Your task to perform on an android device: Go to Yahoo.com Image 0: 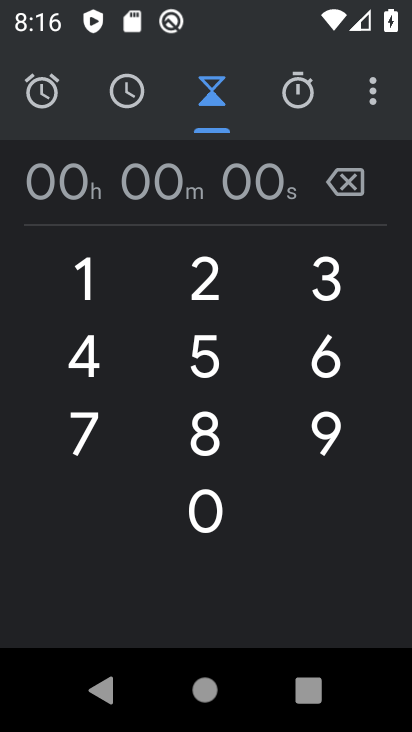
Step 0: press back button
Your task to perform on an android device: Go to Yahoo.com Image 1: 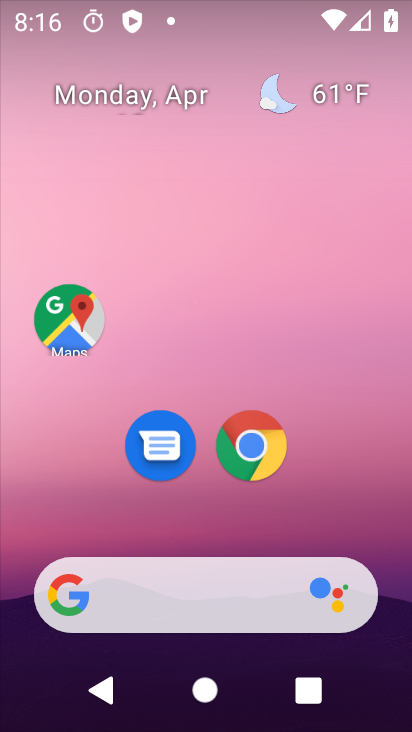
Step 1: click (251, 447)
Your task to perform on an android device: Go to Yahoo.com Image 2: 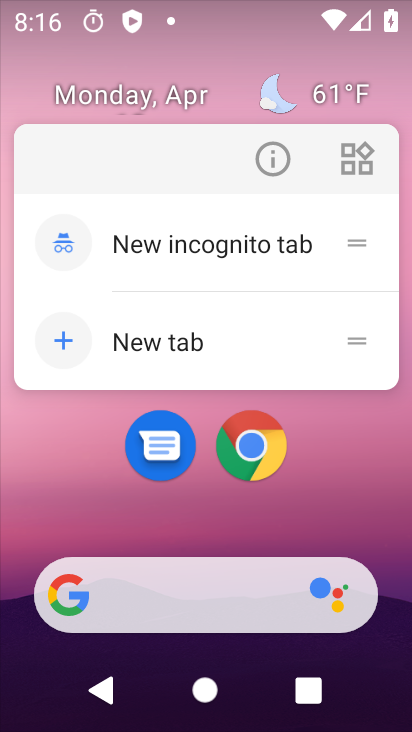
Step 2: click (250, 444)
Your task to perform on an android device: Go to Yahoo.com Image 3: 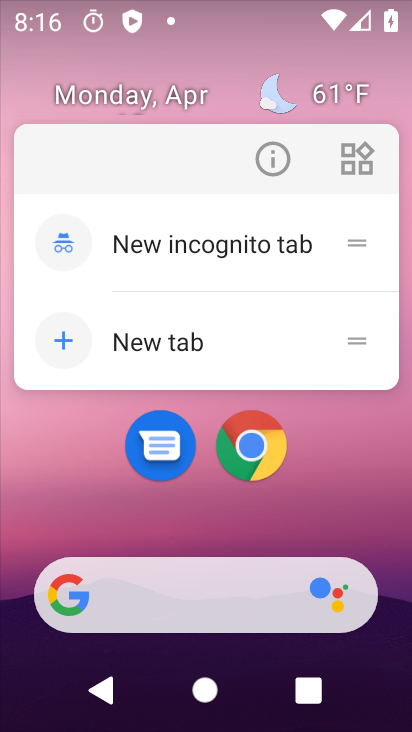
Step 3: click (250, 433)
Your task to perform on an android device: Go to Yahoo.com Image 4: 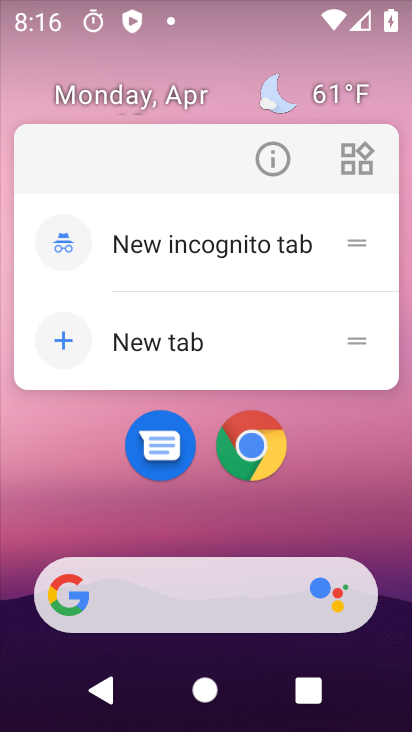
Step 4: drag from (181, 214) to (191, 159)
Your task to perform on an android device: Go to Yahoo.com Image 5: 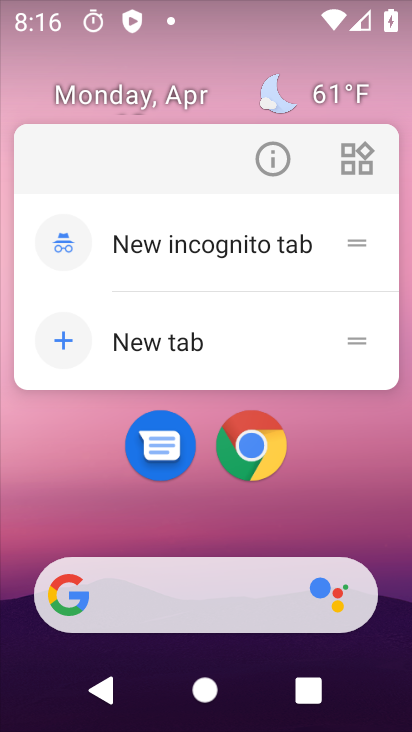
Step 5: drag from (153, 514) to (213, 103)
Your task to perform on an android device: Go to Yahoo.com Image 6: 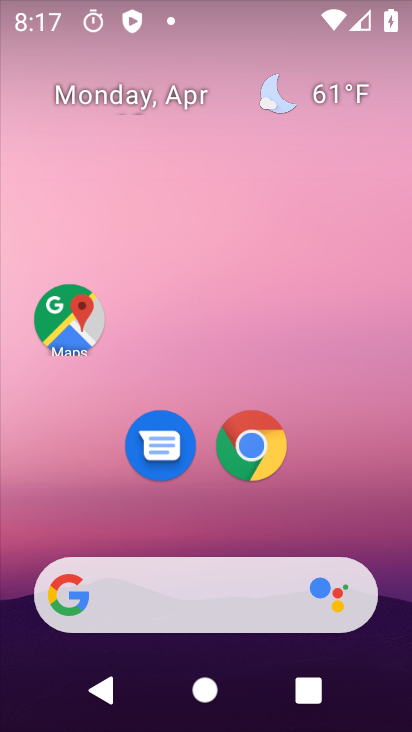
Step 6: drag from (173, 551) to (244, 63)
Your task to perform on an android device: Go to Yahoo.com Image 7: 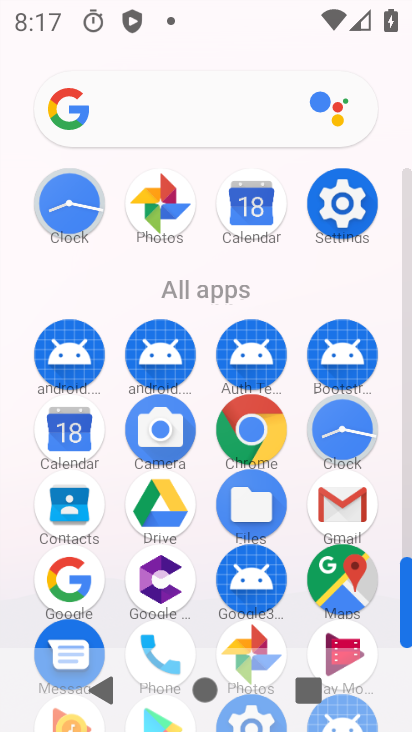
Step 7: click (252, 426)
Your task to perform on an android device: Go to Yahoo.com Image 8: 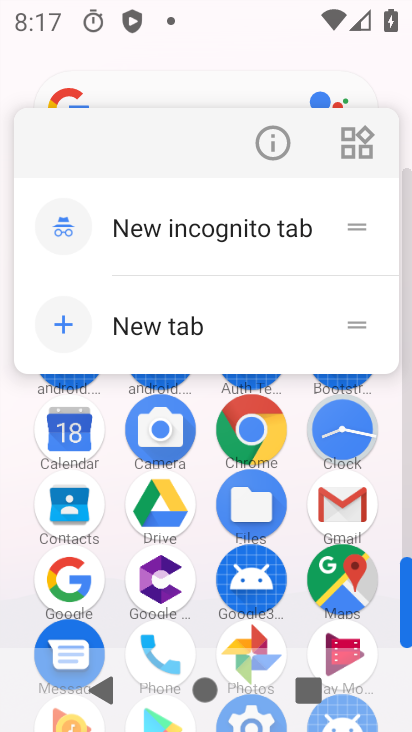
Step 8: click (248, 418)
Your task to perform on an android device: Go to Yahoo.com Image 9: 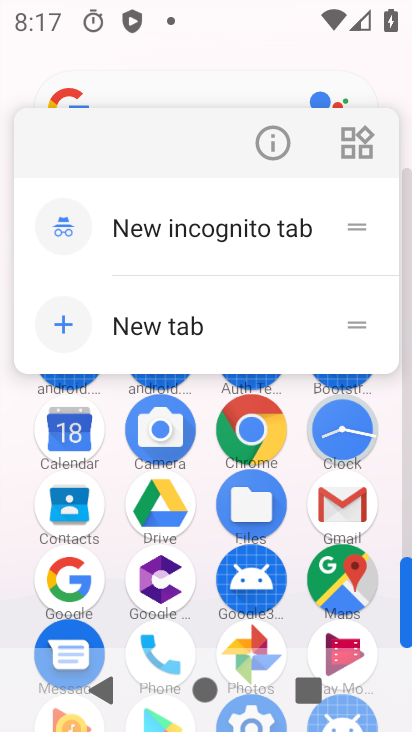
Step 9: click (247, 426)
Your task to perform on an android device: Go to Yahoo.com Image 10: 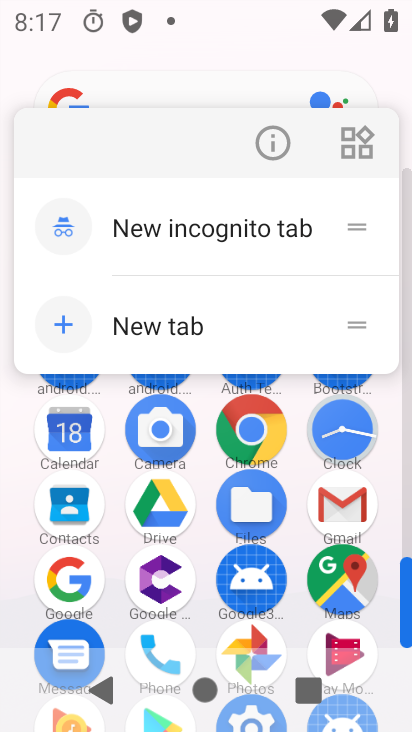
Step 10: click (252, 429)
Your task to perform on an android device: Go to Yahoo.com Image 11: 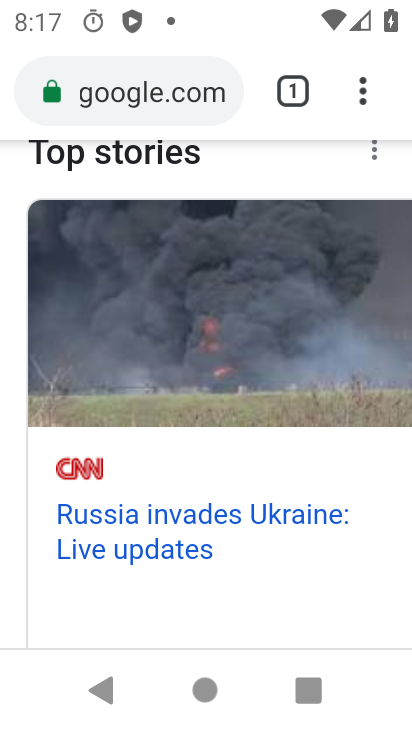
Step 11: click (195, 86)
Your task to perform on an android device: Go to Yahoo.com Image 12: 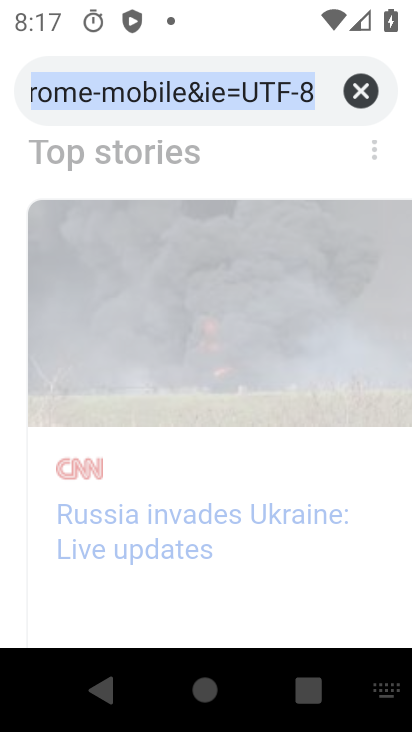
Step 12: type "yahoo.com"
Your task to perform on an android device: Go to Yahoo.com Image 13: 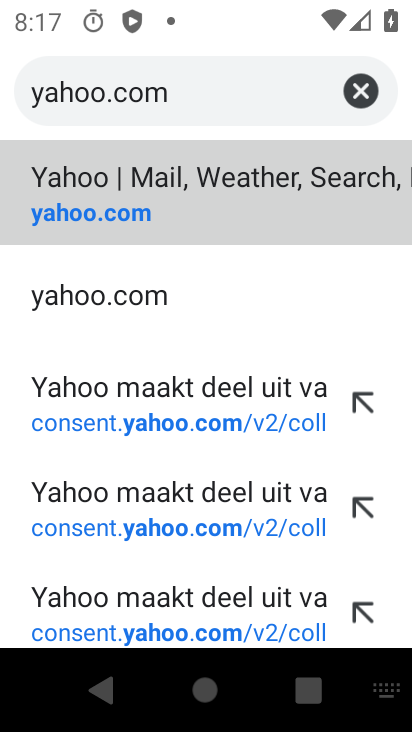
Step 13: click (79, 300)
Your task to perform on an android device: Go to Yahoo.com Image 14: 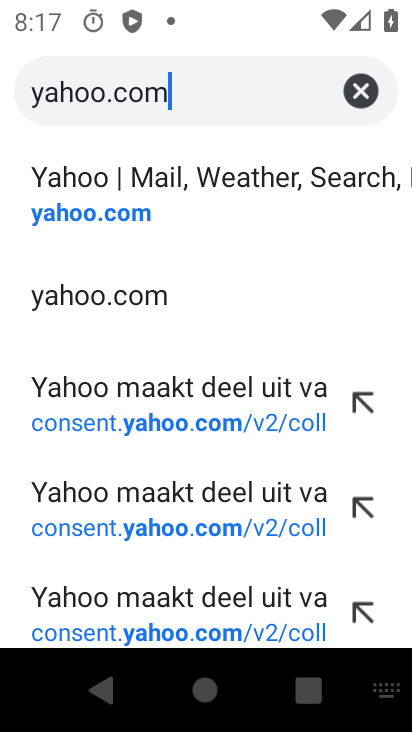
Step 14: click (123, 292)
Your task to perform on an android device: Go to Yahoo.com Image 15: 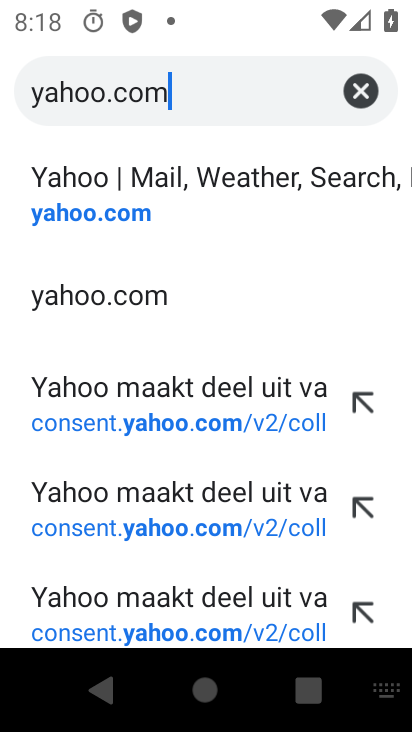
Step 15: click (140, 289)
Your task to perform on an android device: Go to Yahoo.com Image 16: 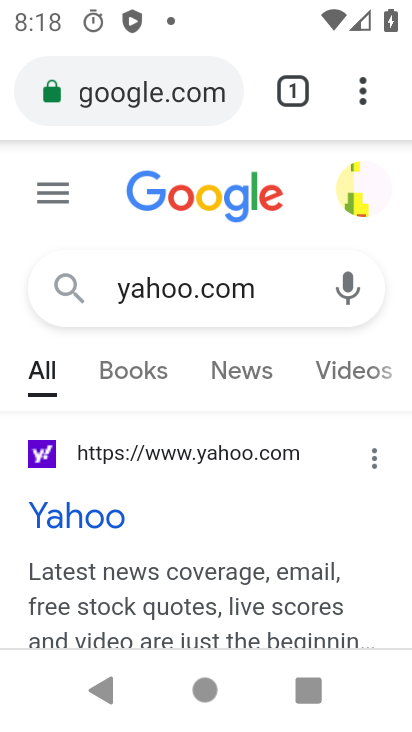
Step 16: task complete